Your task to perform on an android device: install app "Indeed Job Search" Image 0: 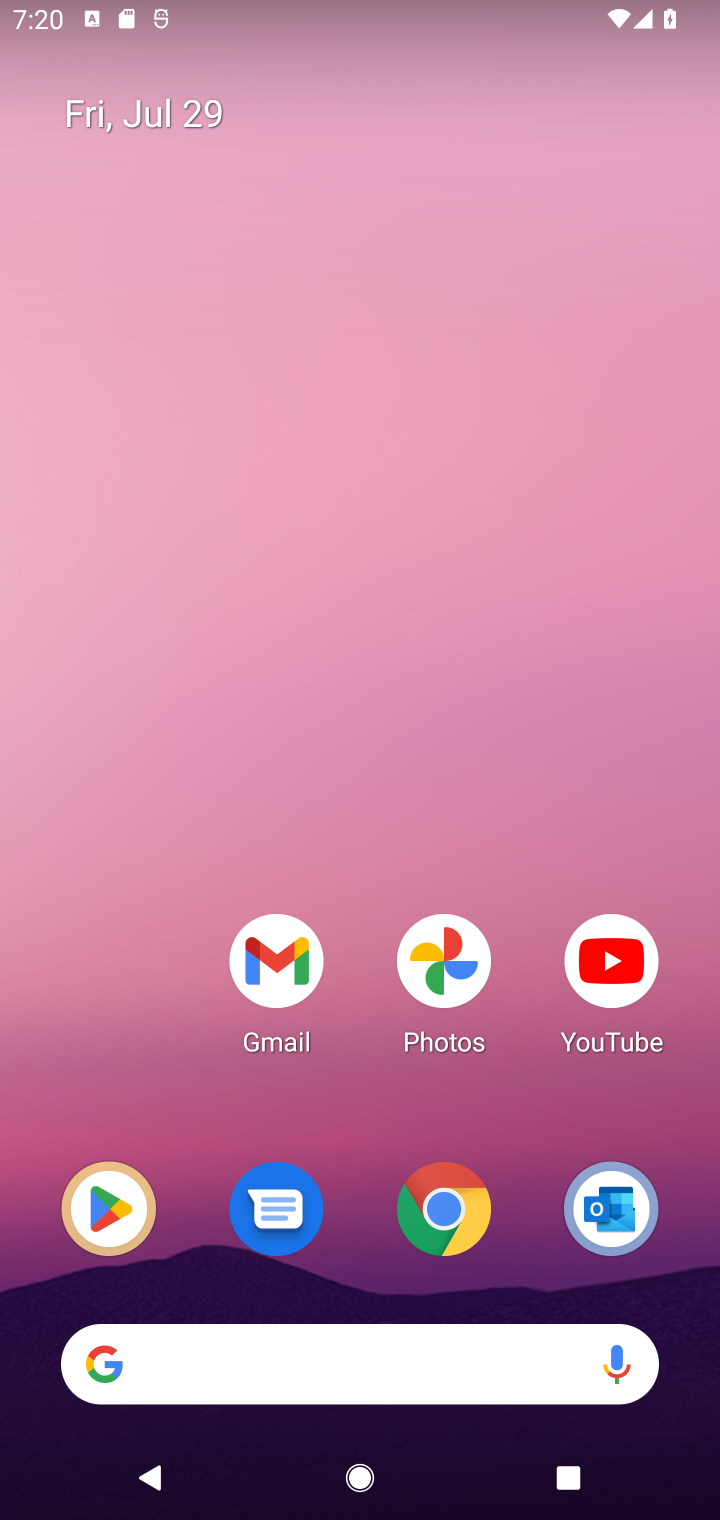
Step 0: click (93, 1199)
Your task to perform on an android device: install app "Indeed Job Search" Image 1: 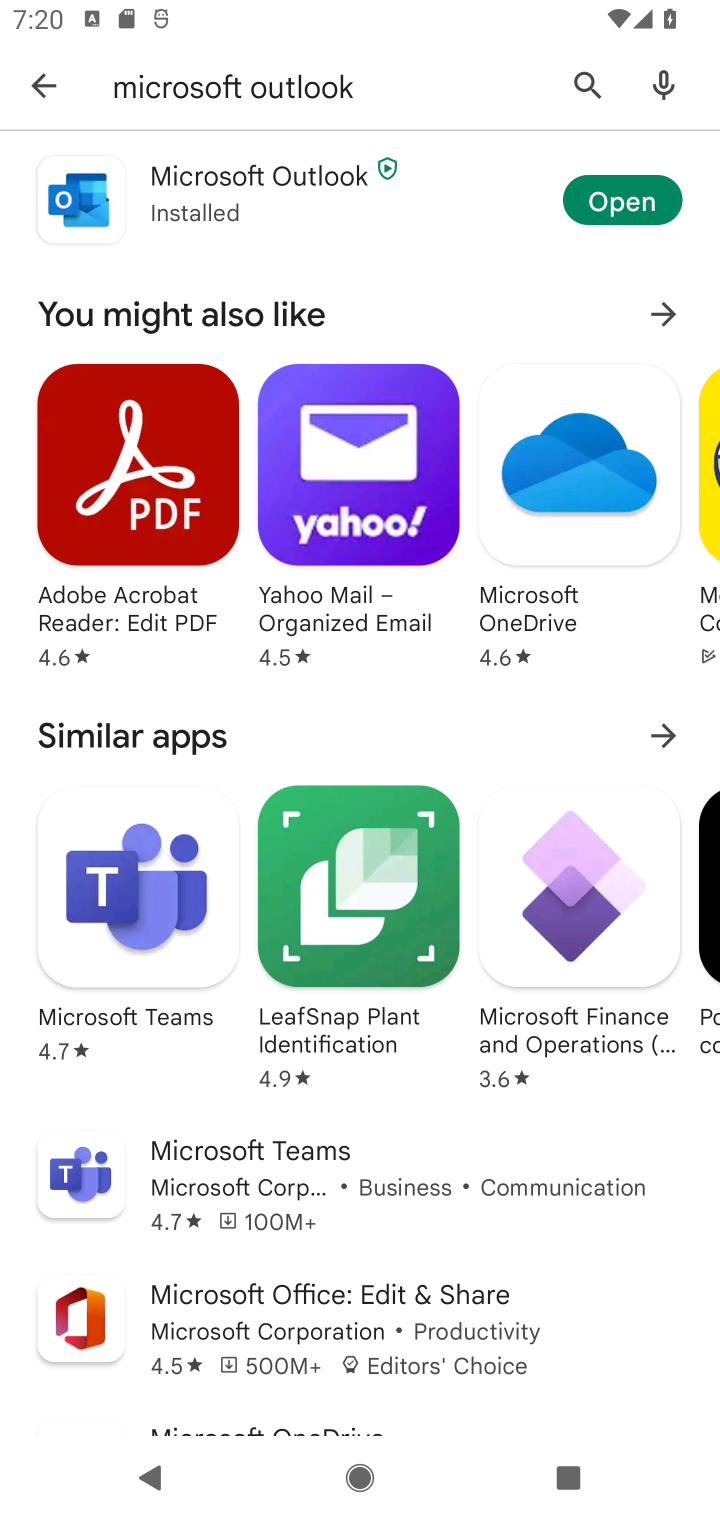
Step 1: click (587, 86)
Your task to perform on an android device: install app "Indeed Job Search" Image 2: 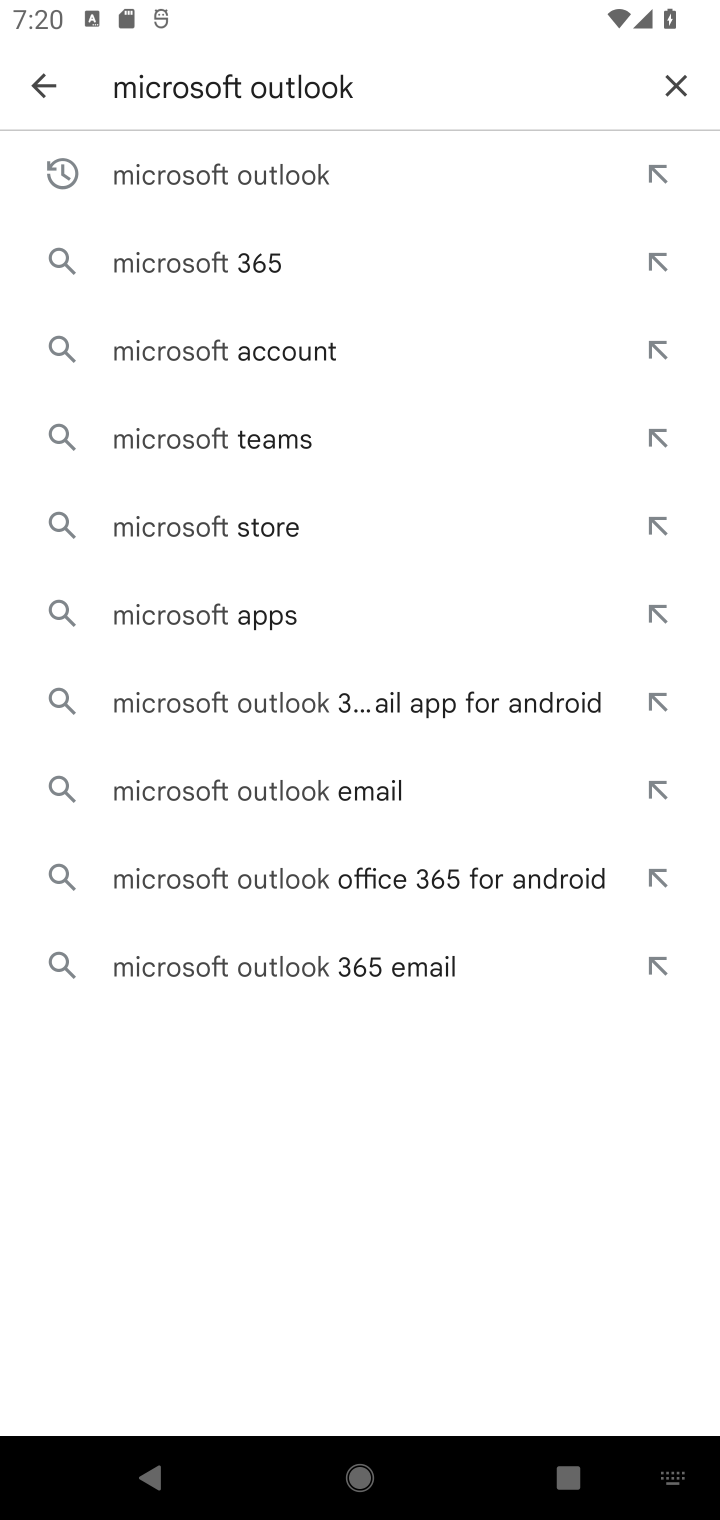
Step 2: click (674, 83)
Your task to perform on an android device: install app "Indeed Job Search" Image 3: 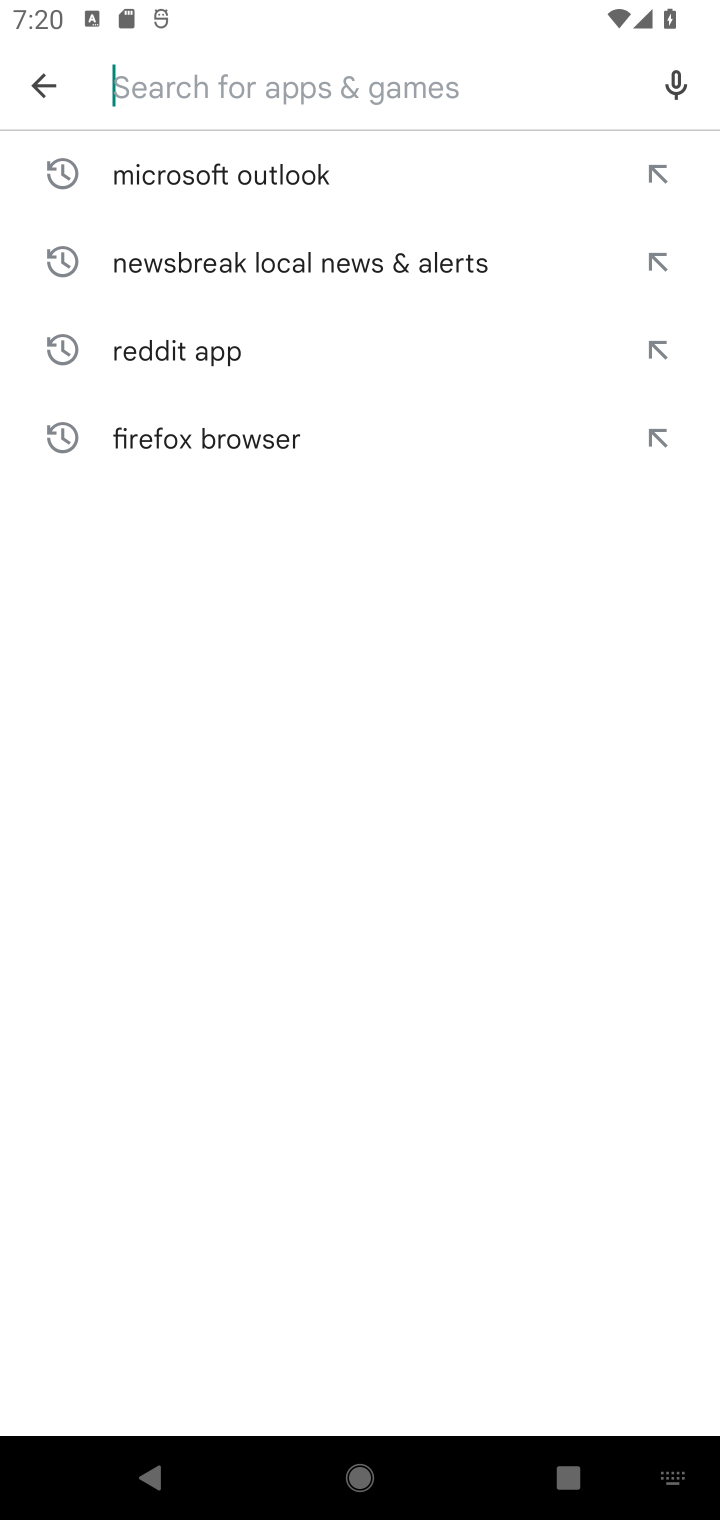
Step 3: type "Indeed Job Search"
Your task to perform on an android device: install app "Indeed Job Search" Image 4: 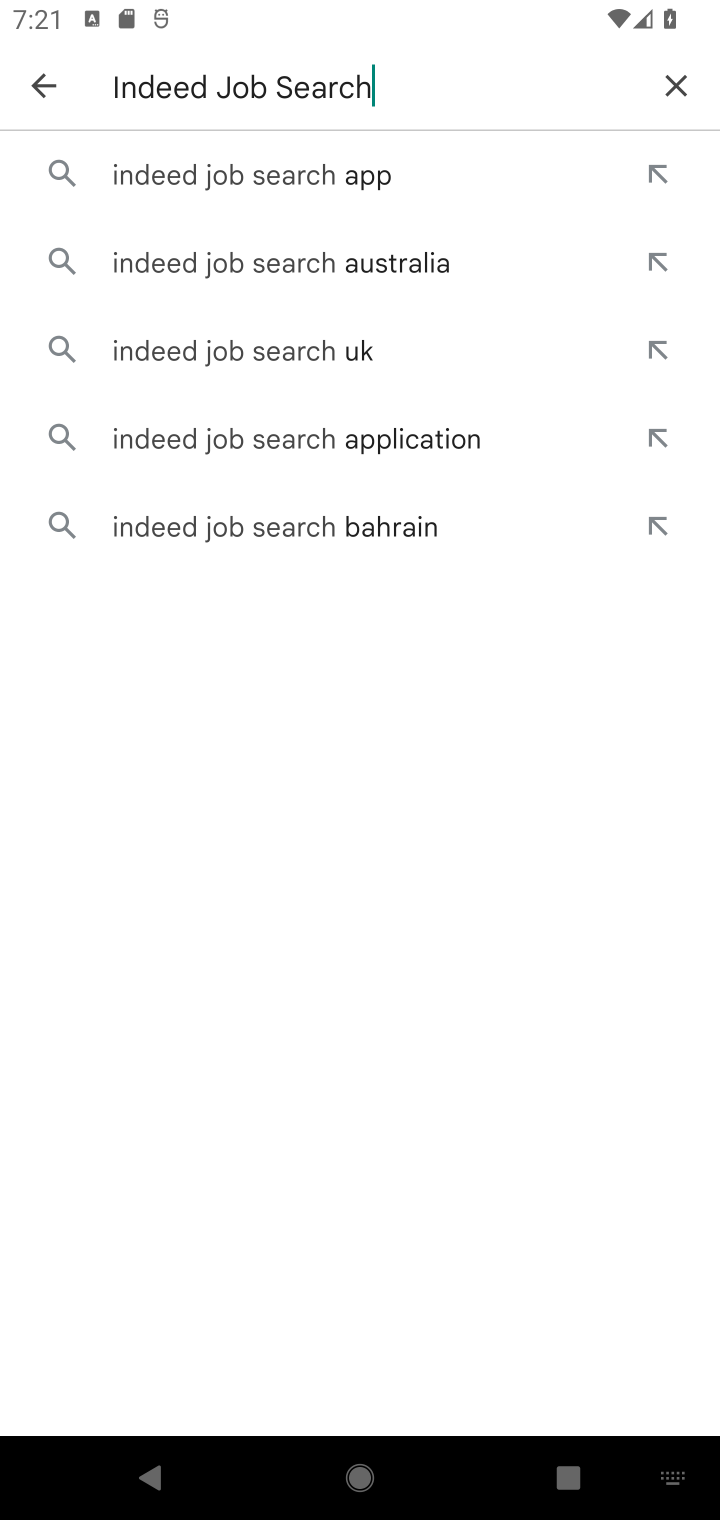
Step 4: click (185, 186)
Your task to perform on an android device: install app "Indeed Job Search" Image 5: 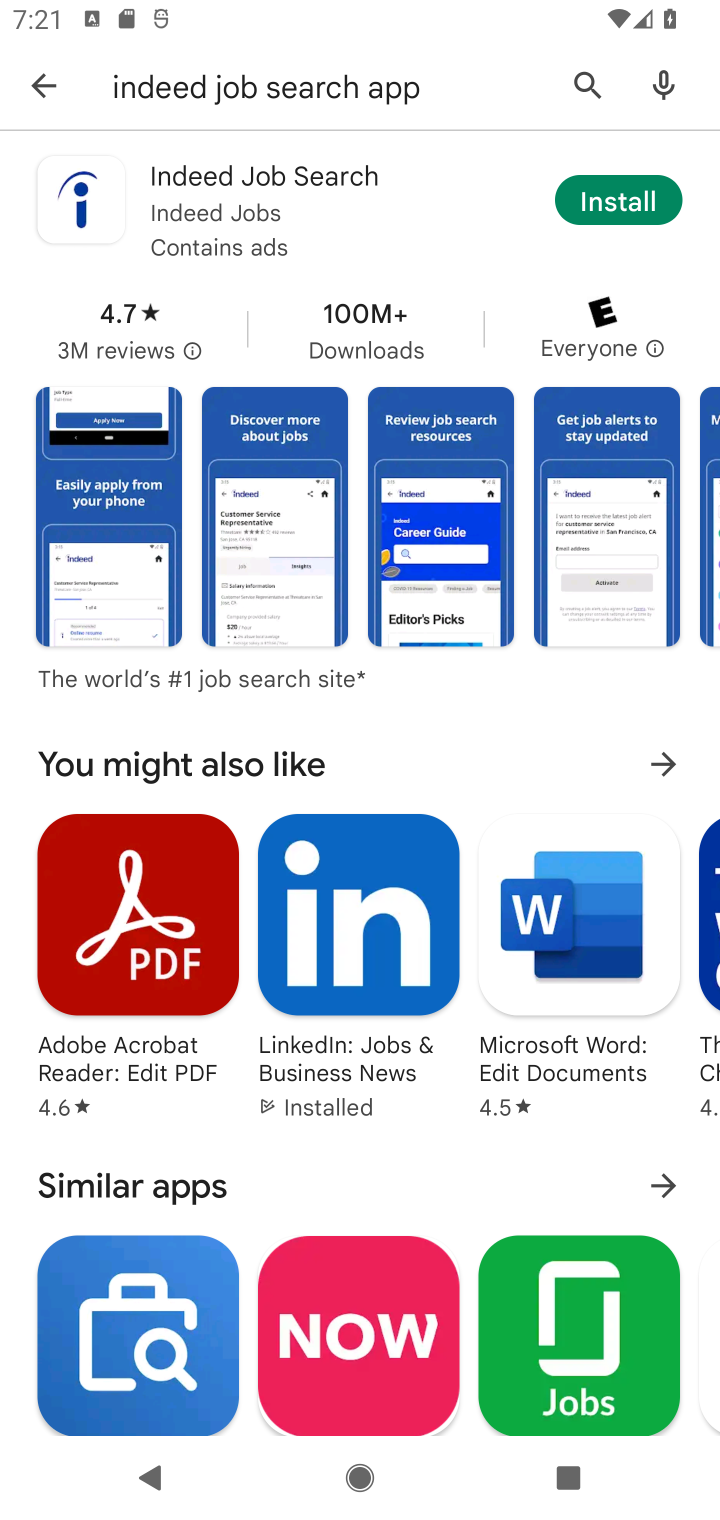
Step 5: click (622, 197)
Your task to perform on an android device: install app "Indeed Job Search" Image 6: 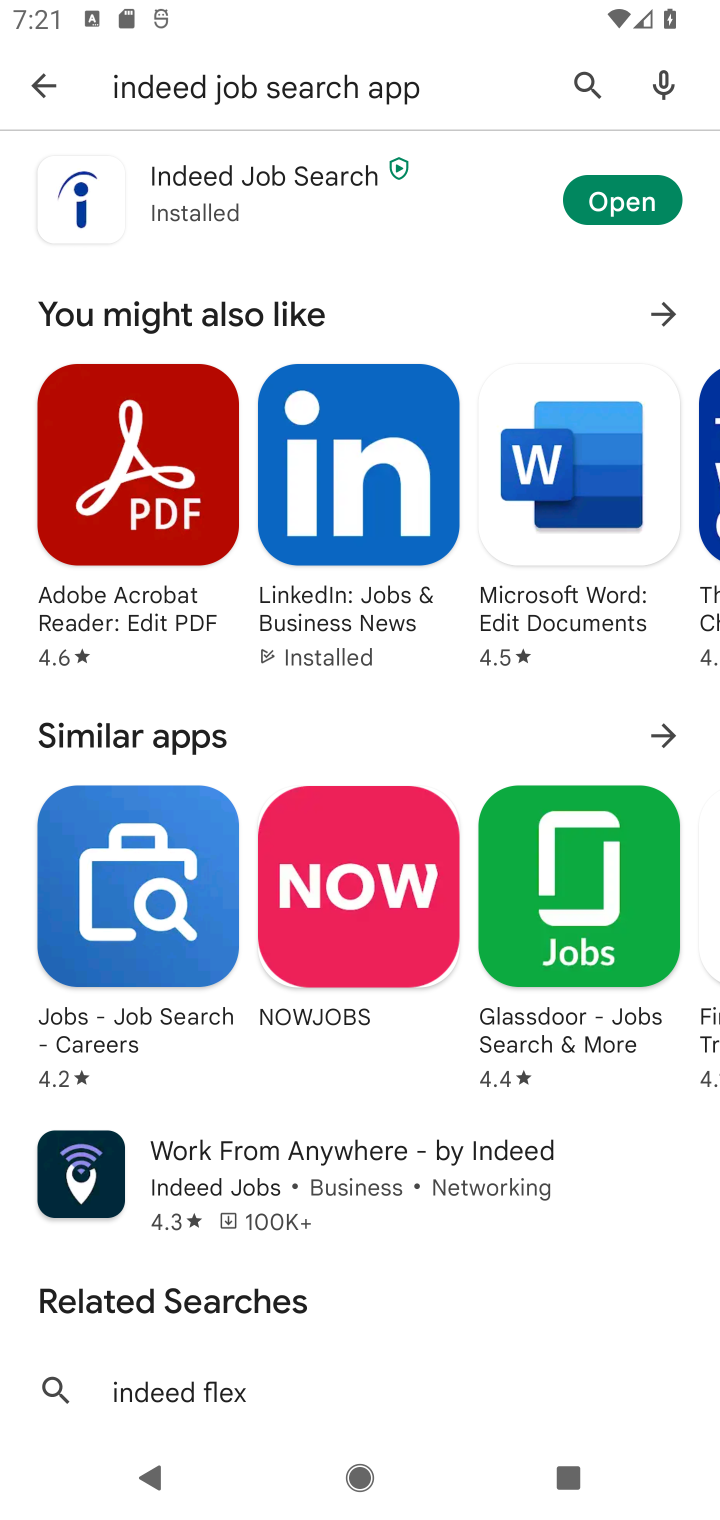
Step 6: task complete